Your task to perform on an android device: check battery use Image 0: 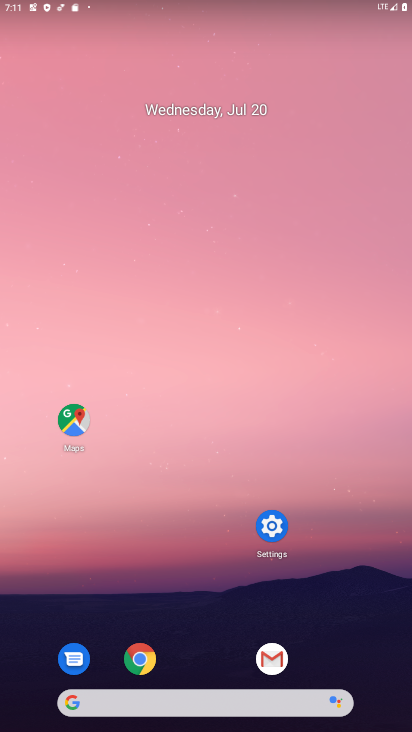
Step 0: click (279, 533)
Your task to perform on an android device: check battery use Image 1: 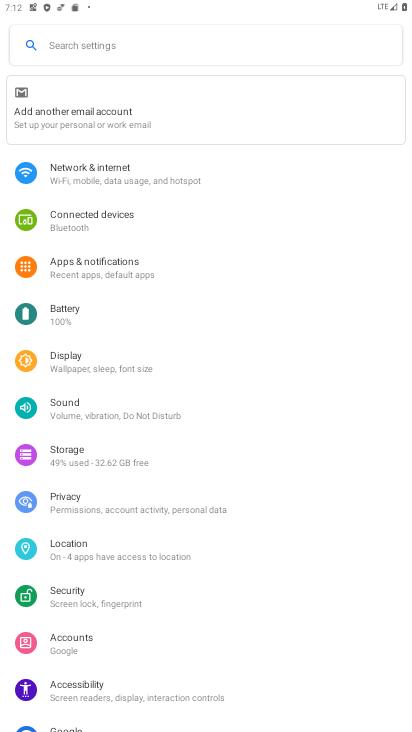
Step 1: click (88, 324)
Your task to perform on an android device: check battery use Image 2: 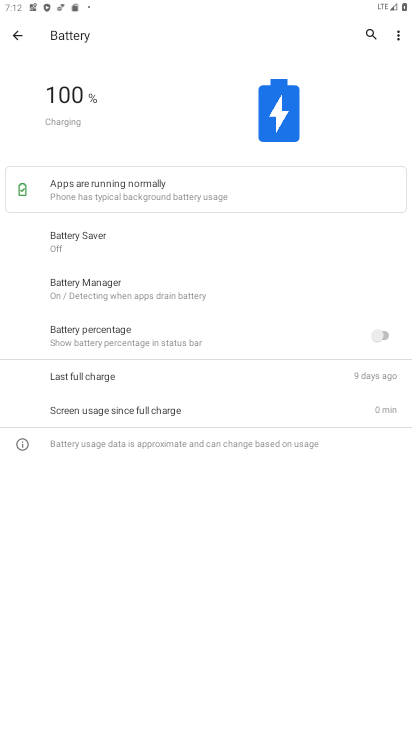
Step 2: task complete